Your task to perform on an android device: Open battery settings Image 0: 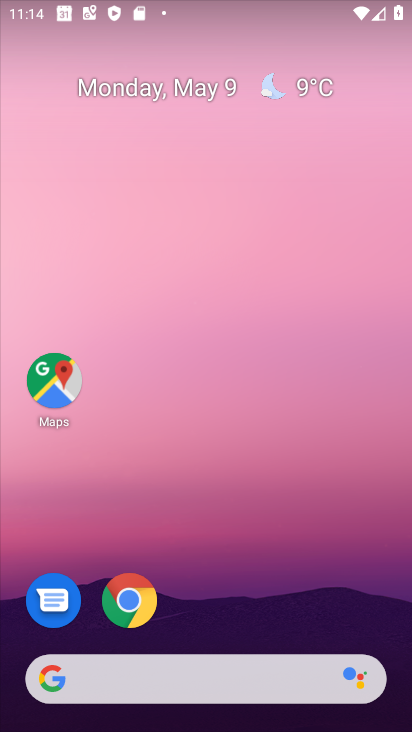
Step 0: drag from (283, 599) to (312, 52)
Your task to perform on an android device: Open battery settings Image 1: 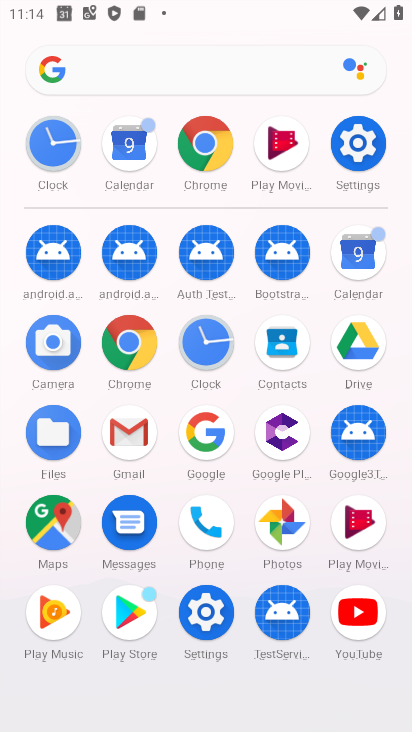
Step 1: click (194, 616)
Your task to perform on an android device: Open battery settings Image 2: 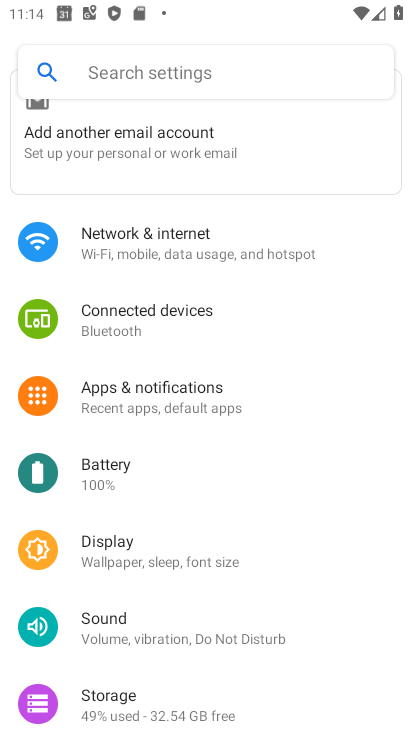
Step 2: click (101, 471)
Your task to perform on an android device: Open battery settings Image 3: 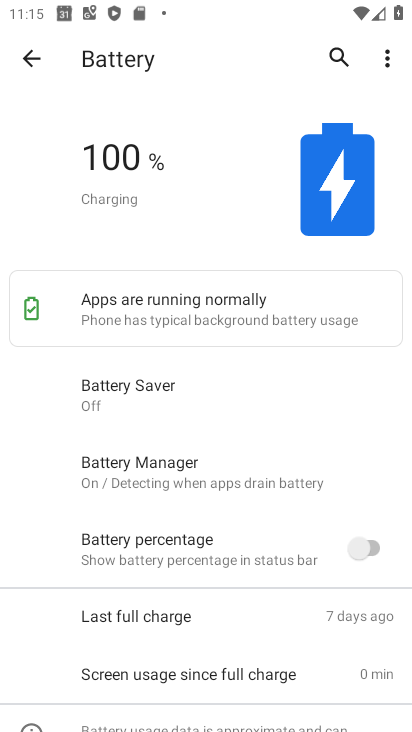
Step 3: task complete